Your task to perform on an android device: refresh tabs in the chrome app Image 0: 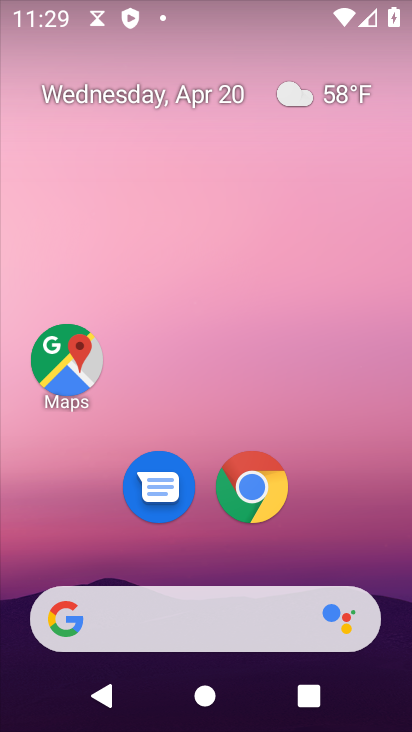
Step 0: drag from (357, 492) to (256, 13)
Your task to perform on an android device: refresh tabs in the chrome app Image 1: 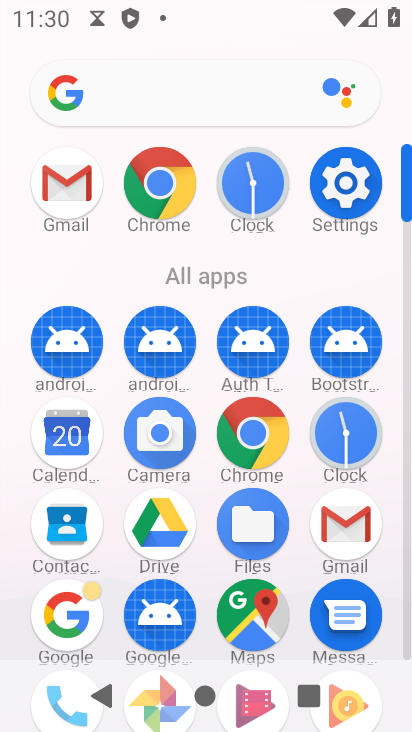
Step 1: click (150, 179)
Your task to perform on an android device: refresh tabs in the chrome app Image 2: 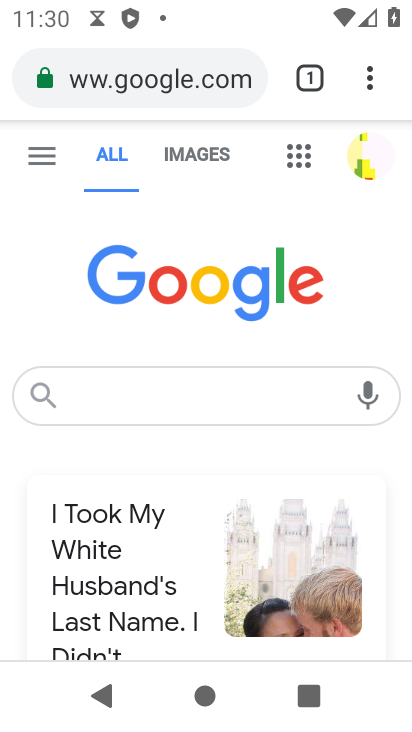
Step 2: click (376, 80)
Your task to perform on an android device: refresh tabs in the chrome app Image 3: 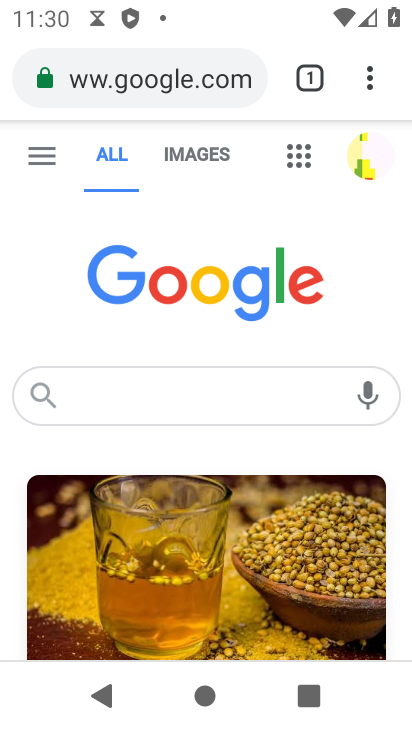
Step 3: task complete